Your task to perform on an android device: Search for sushi restaurants on Maps Image 0: 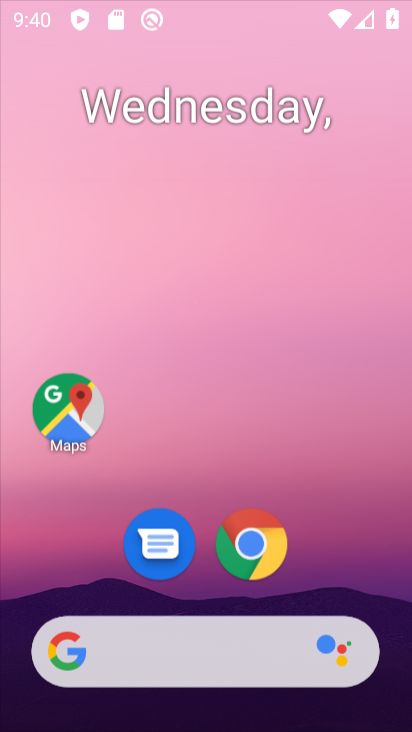
Step 0: drag from (395, 111) to (277, 1)
Your task to perform on an android device: Search for sushi restaurants on Maps Image 1: 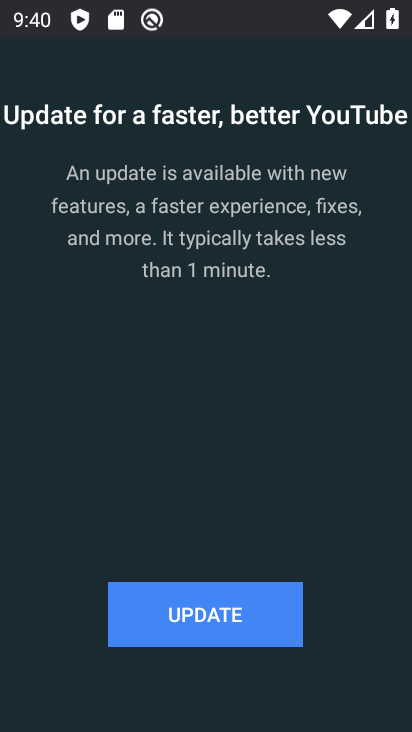
Step 1: press home button
Your task to perform on an android device: Search for sushi restaurants on Maps Image 2: 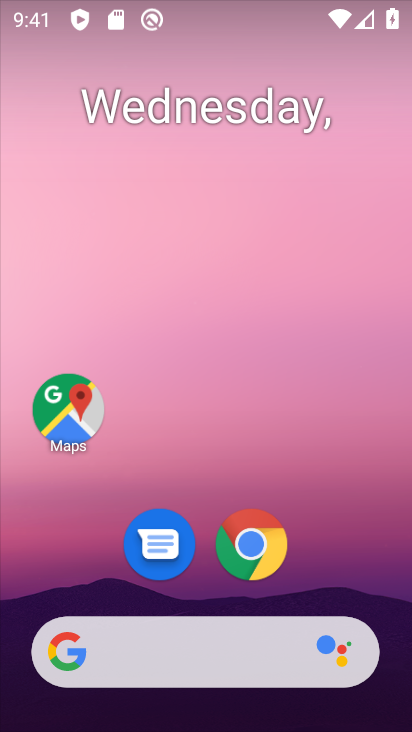
Step 2: click (71, 405)
Your task to perform on an android device: Search for sushi restaurants on Maps Image 3: 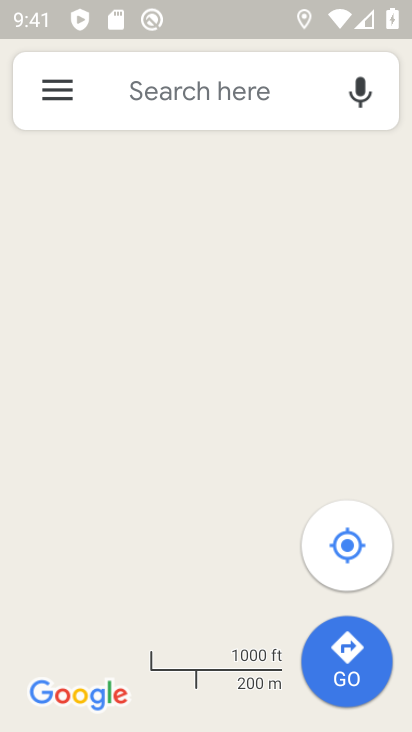
Step 3: click (125, 114)
Your task to perform on an android device: Search for sushi restaurants on Maps Image 4: 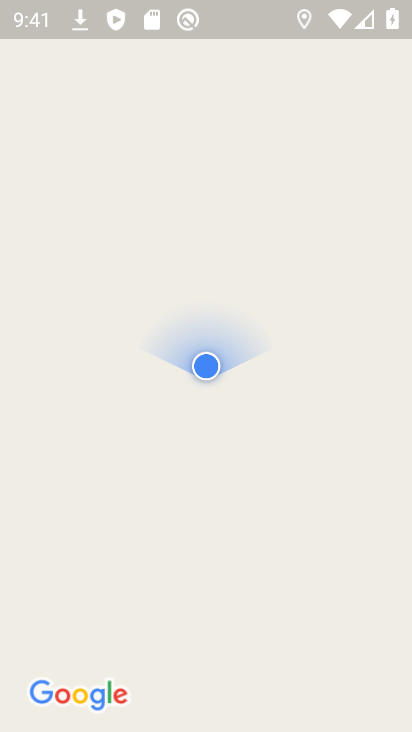
Step 4: click (173, 67)
Your task to perform on an android device: Search for sushi restaurants on Maps Image 5: 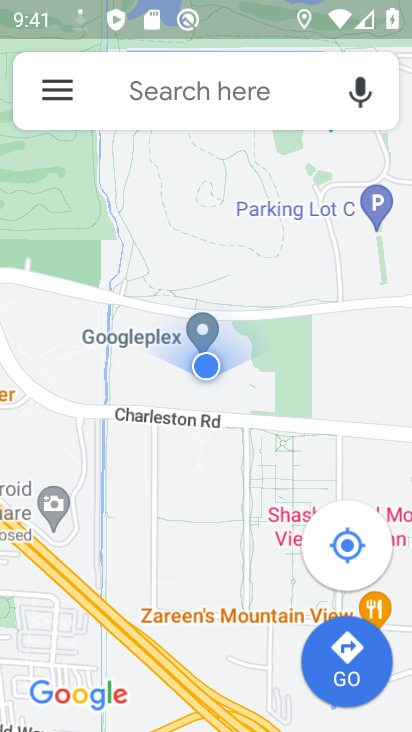
Step 5: click (122, 83)
Your task to perform on an android device: Search for sushi restaurants on Maps Image 6: 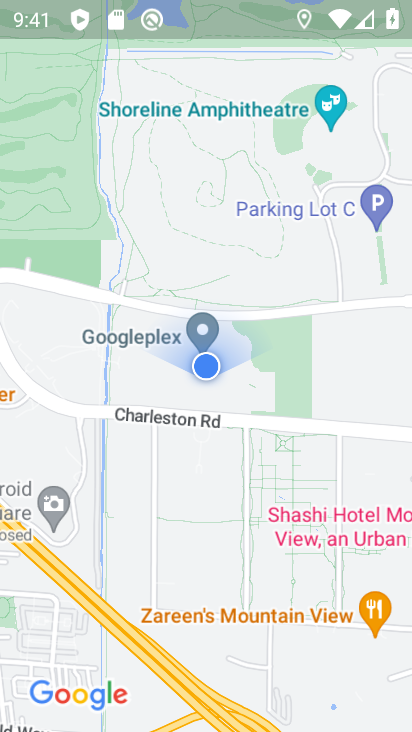
Step 6: click (167, 53)
Your task to perform on an android device: Search for sushi restaurants on Maps Image 7: 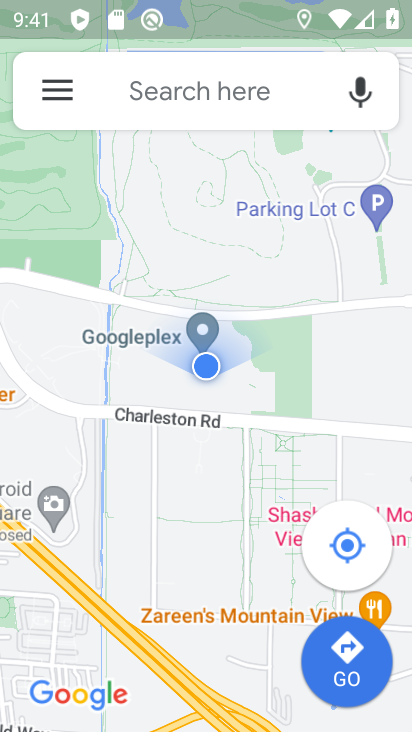
Step 7: click (187, 94)
Your task to perform on an android device: Search for sushi restaurants on Maps Image 8: 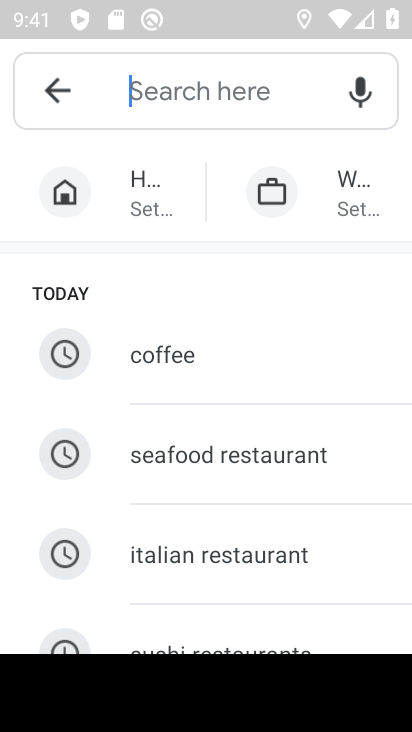
Step 8: click (145, 91)
Your task to perform on an android device: Search for sushi restaurants on Maps Image 9: 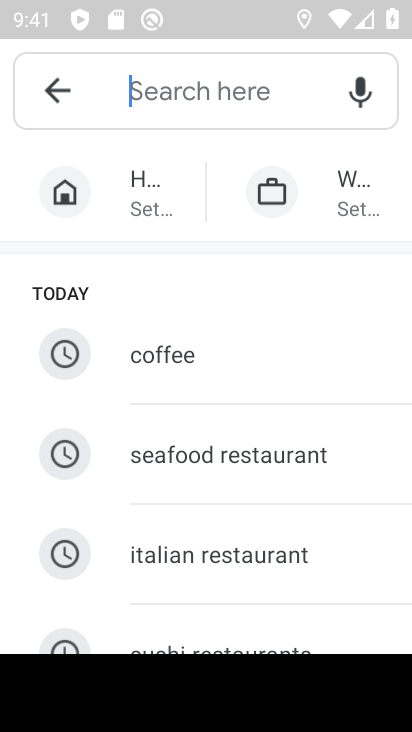
Step 9: type "sushi restaurant"
Your task to perform on an android device: Search for sushi restaurants on Maps Image 10: 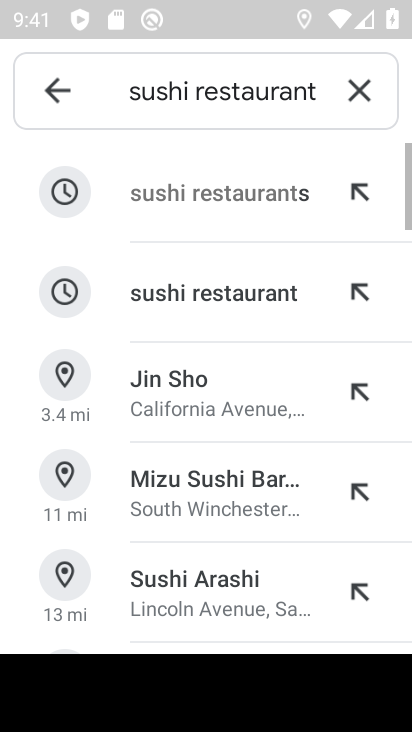
Step 10: click (182, 205)
Your task to perform on an android device: Search for sushi restaurants on Maps Image 11: 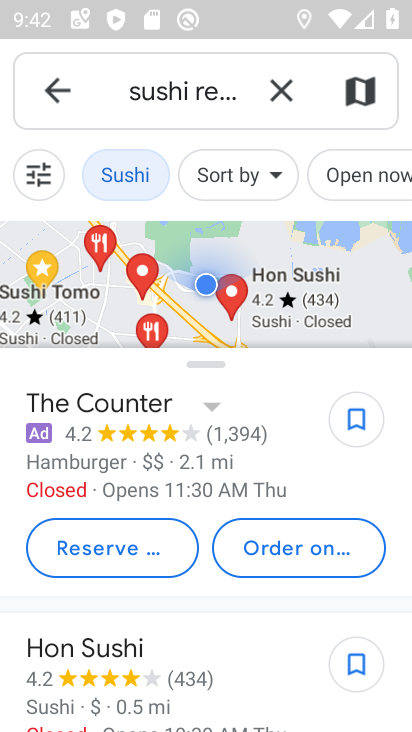
Step 11: task complete